Your task to perform on an android device: Go to Google Image 0: 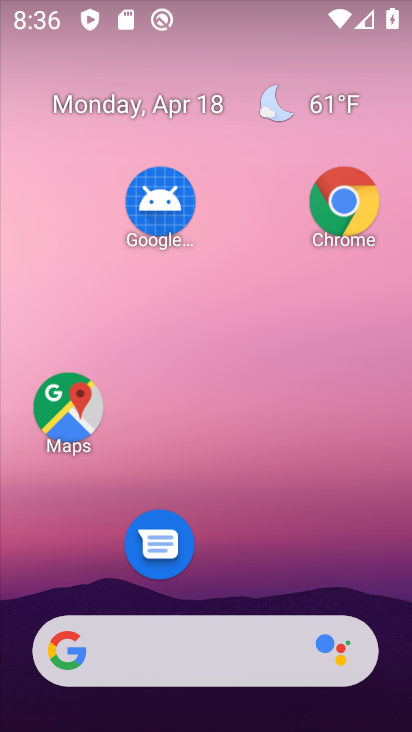
Step 0: drag from (227, 590) to (197, 44)
Your task to perform on an android device: Go to Google Image 1: 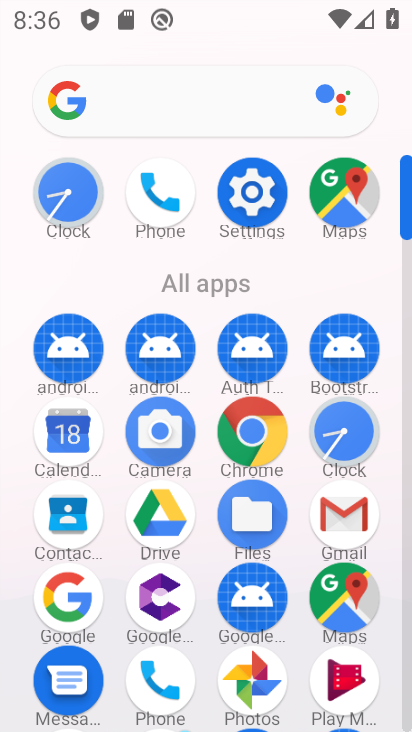
Step 1: click (85, 604)
Your task to perform on an android device: Go to Google Image 2: 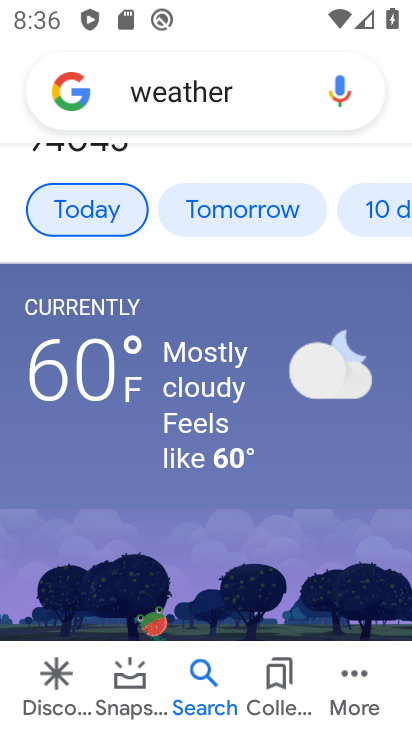
Step 2: task complete